Your task to perform on an android device: delete the emails in spam in the gmail app Image 0: 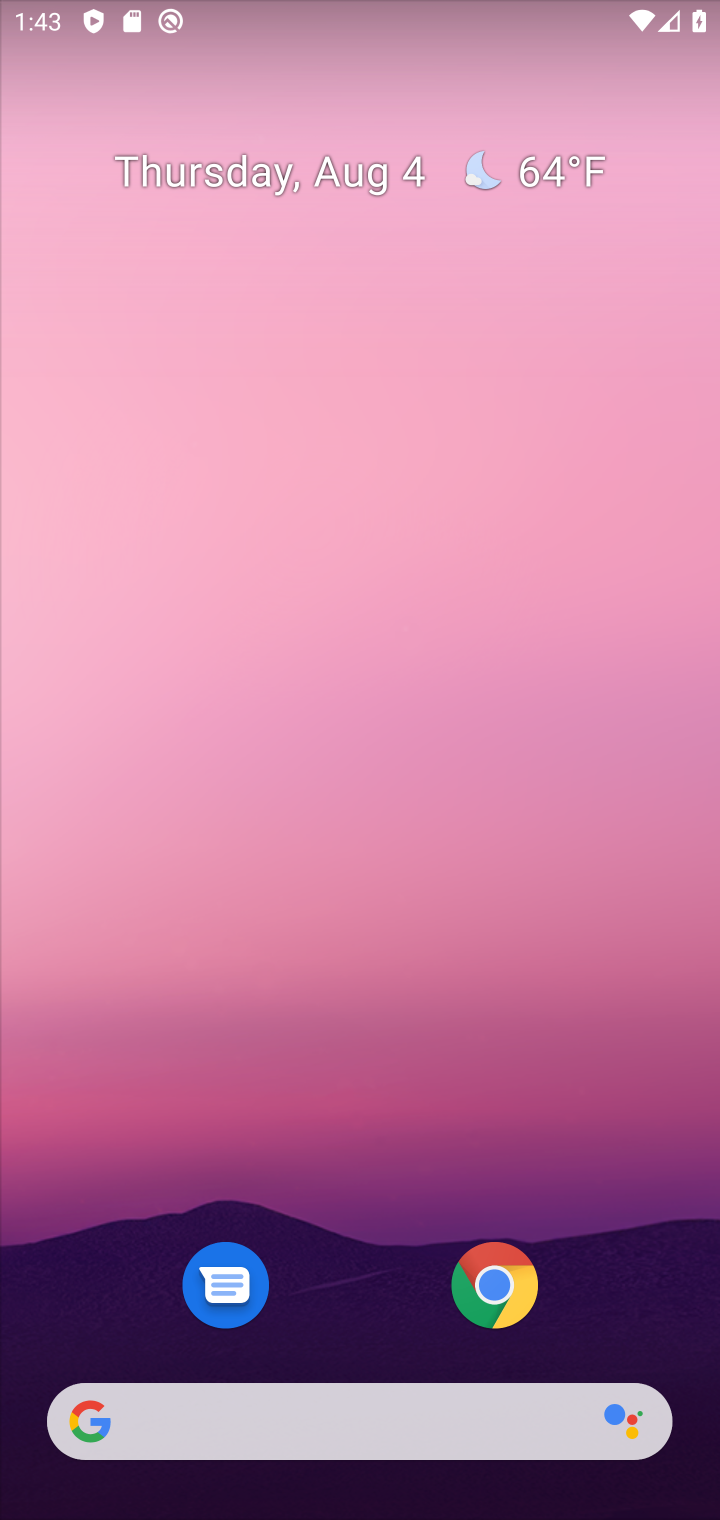
Step 0: drag from (629, 1309) to (501, 314)
Your task to perform on an android device: delete the emails in spam in the gmail app Image 1: 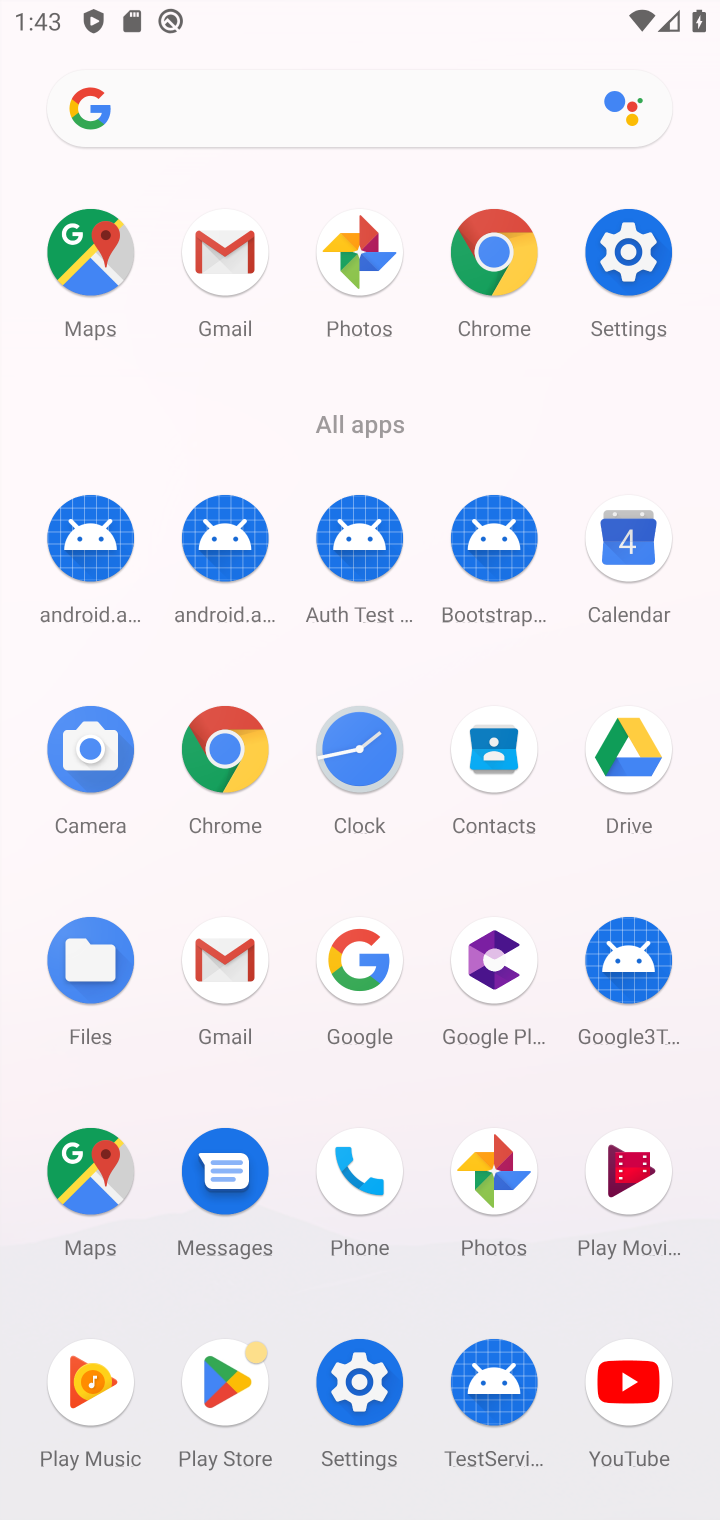
Step 1: click (218, 959)
Your task to perform on an android device: delete the emails in spam in the gmail app Image 2: 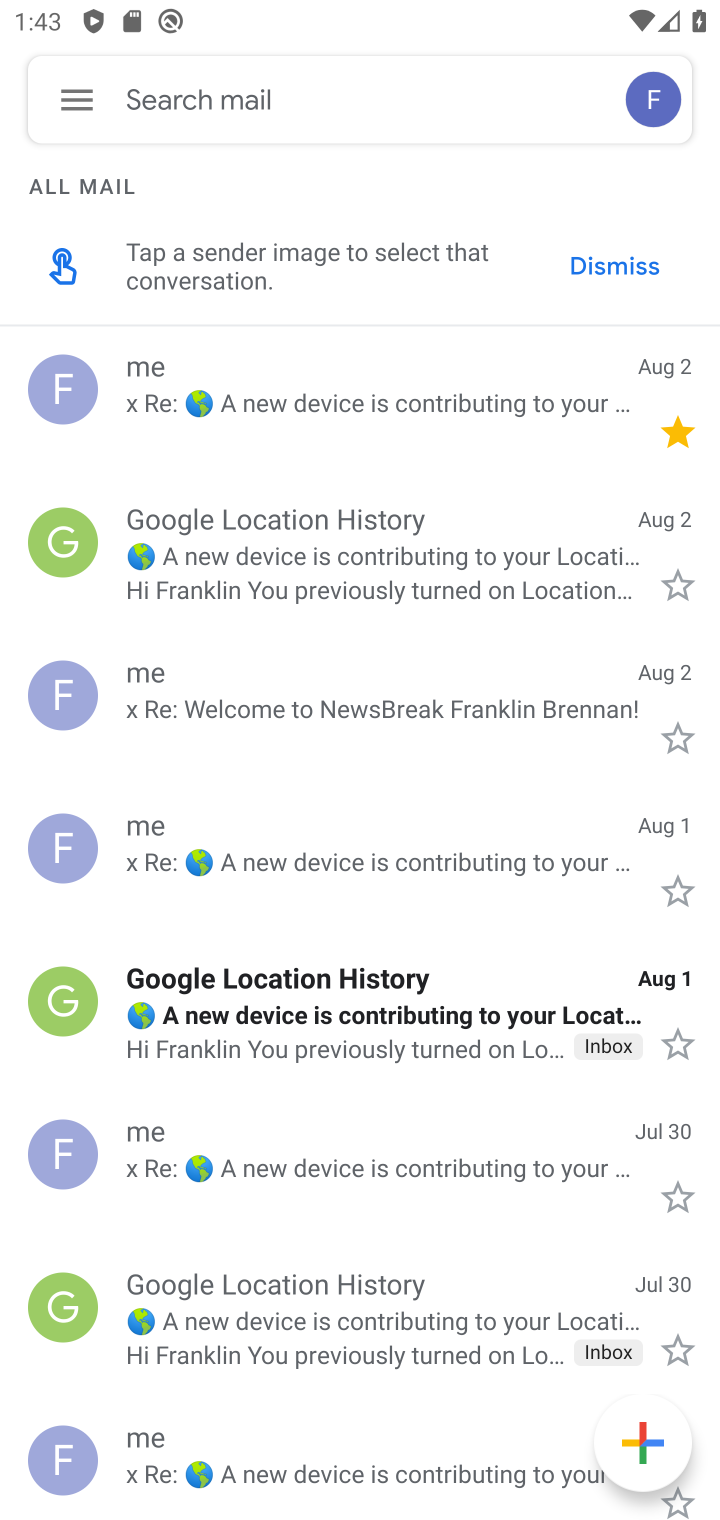
Step 2: click (69, 94)
Your task to perform on an android device: delete the emails in spam in the gmail app Image 3: 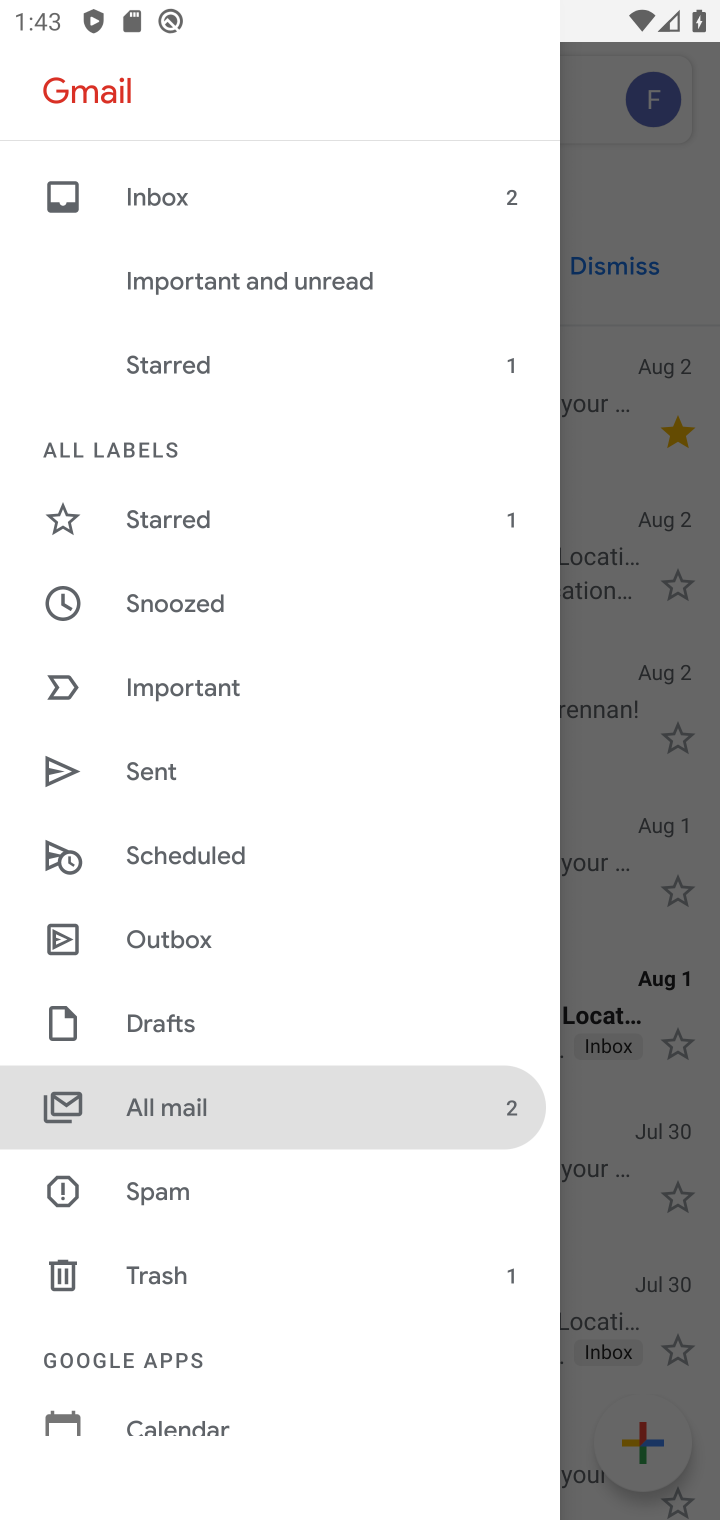
Step 3: click (177, 1196)
Your task to perform on an android device: delete the emails in spam in the gmail app Image 4: 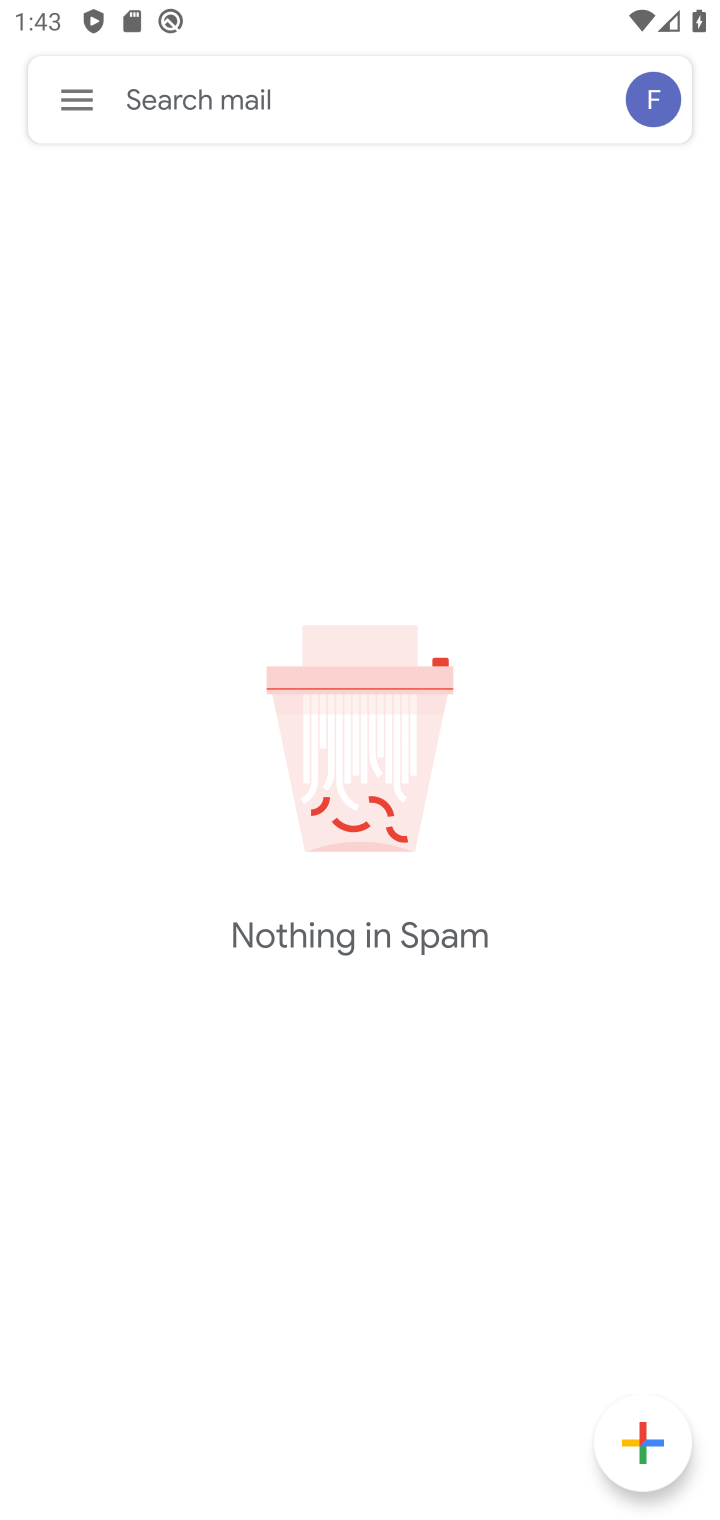
Step 4: task complete